Your task to perform on an android device: turn on airplane mode Image 0: 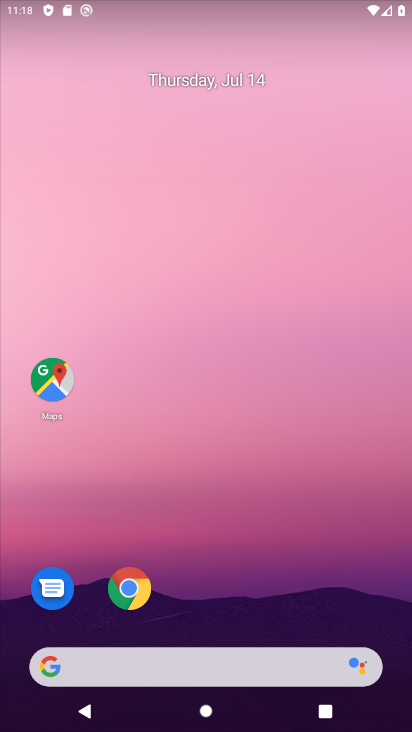
Step 0: drag from (269, 589) to (264, 168)
Your task to perform on an android device: turn on airplane mode Image 1: 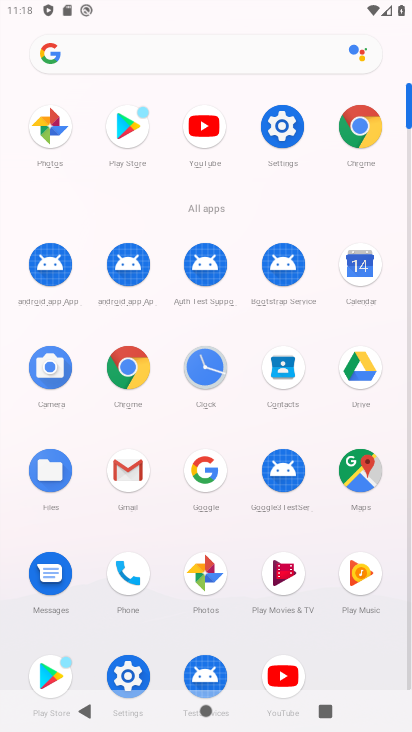
Step 1: click (130, 669)
Your task to perform on an android device: turn on airplane mode Image 2: 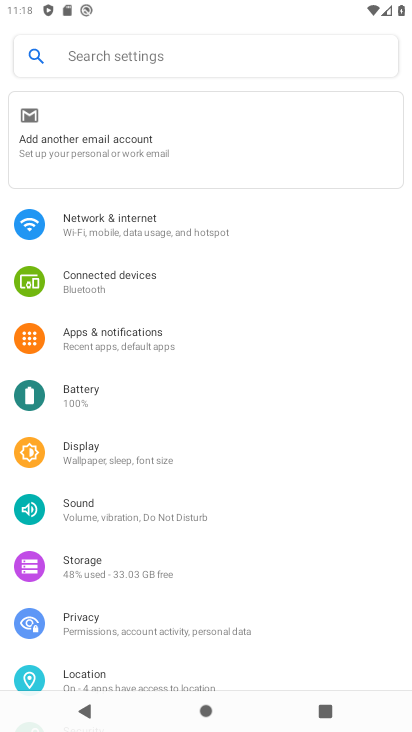
Step 2: click (143, 229)
Your task to perform on an android device: turn on airplane mode Image 3: 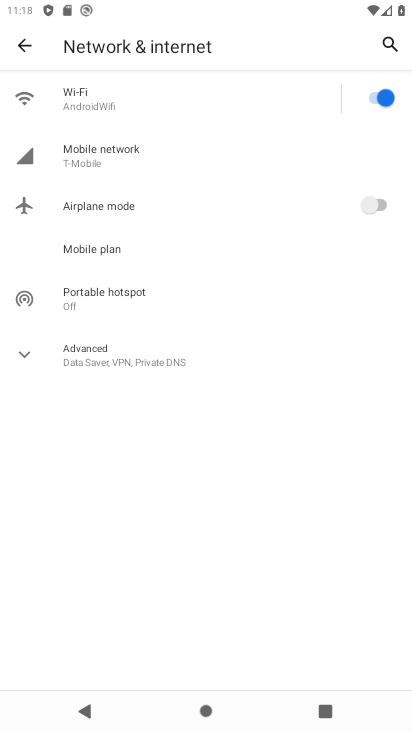
Step 3: click (391, 202)
Your task to perform on an android device: turn on airplane mode Image 4: 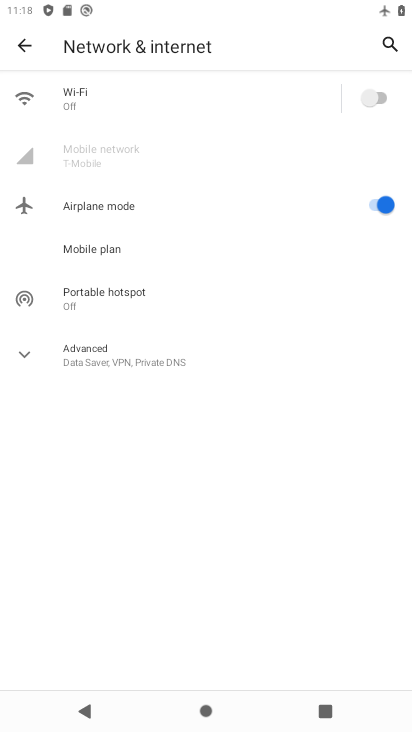
Step 4: task complete